Your task to perform on an android device: Go to Wikipedia Image 0: 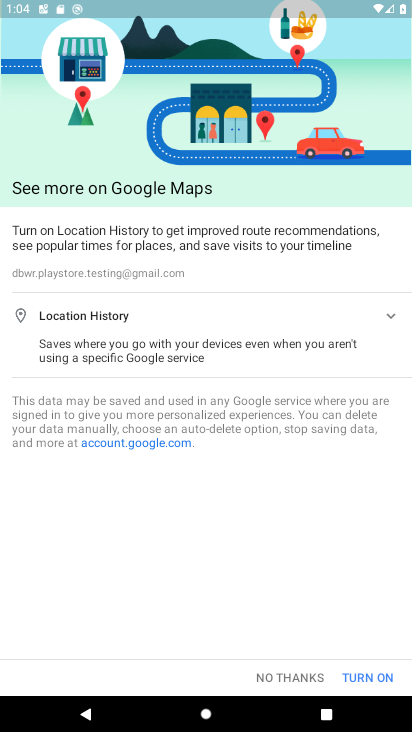
Step 0: press home button
Your task to perform on an android device: Go to Wikipedia Image 1: 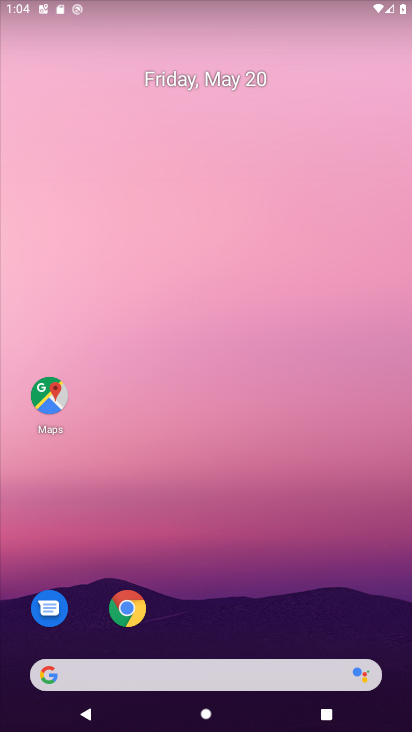
Step 1: drag from (202, 613) to (259, 260)
Your task to perform on an android device: Go to Wikipedia Image 2: 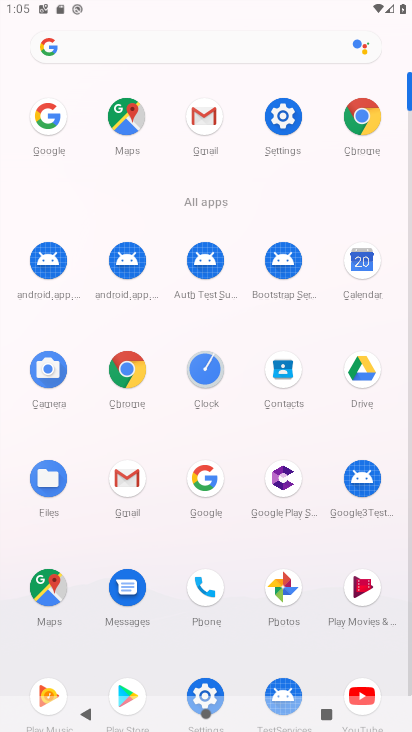
Step 2: click (204, 479)
Your task to perform on an android device: Go to Wikipedia Image 3: 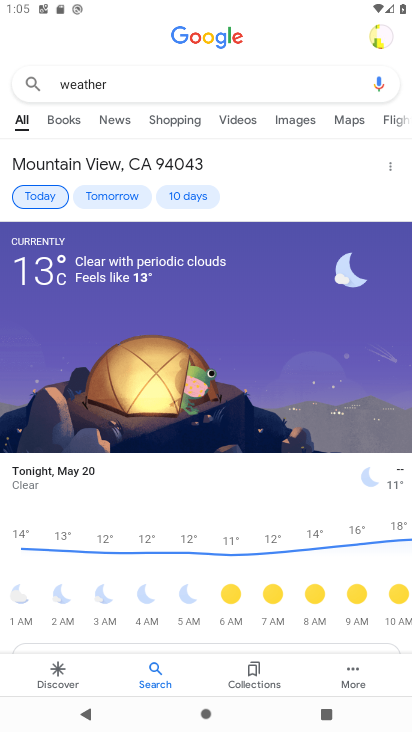
Step 3: drag from (118, 83) to (49, 80)
Your task to perform on an android device: Go to Wikipedia Image 4: 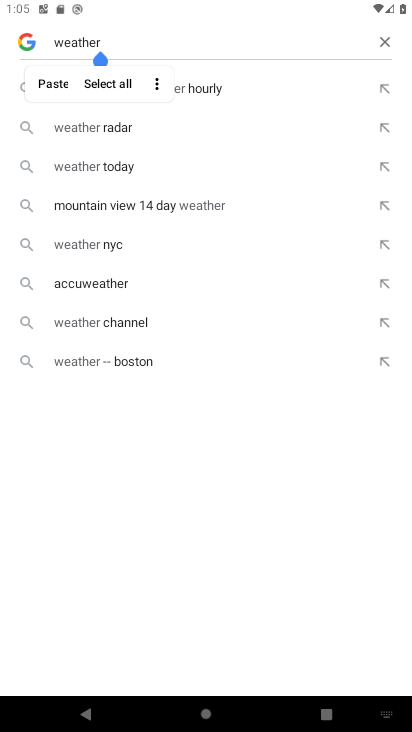
Step 4: click (383, 33)
Your task to perform on an android device: Go to Wikipedia Image 5: 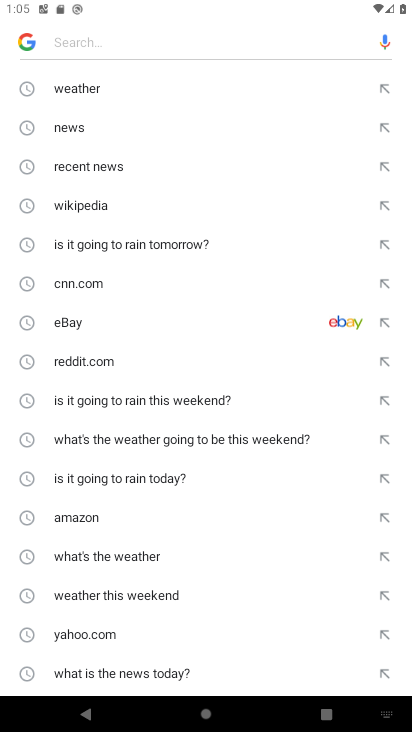
Step 5: click (112, 204)
Your task to perform on an android device: Go to Wikipedia Image 6: 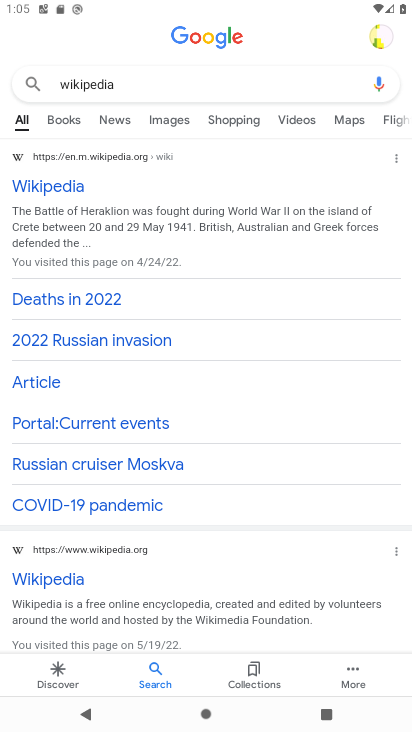
Step 6: click (60, 180)
Your task to perform on an android device: Go to Wikipedia Image 7: 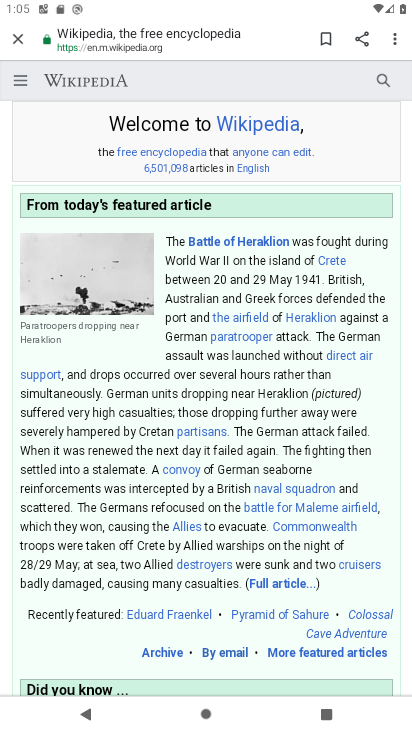
Step 7: task complete